Your task to perform on an android device: When is my next appointment? Image 0: 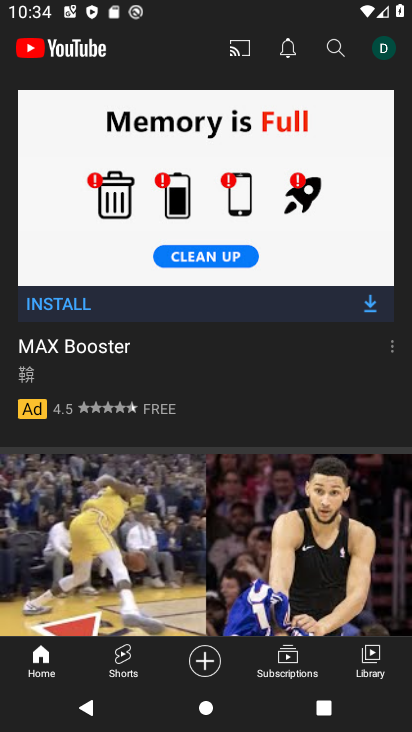
Step 0: press home button
Your task to perform on an android device: When is my next appointment? Image 1: 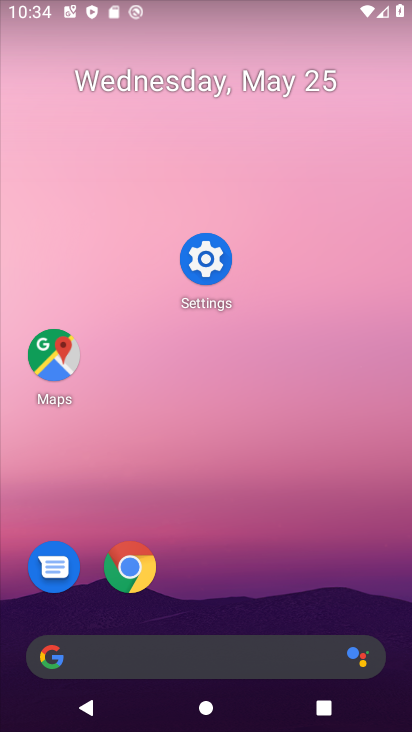
Step 1: drag from (219, 584) to (256, 30)
Your task to perform on an android device: When is my next appointment? Image 2: 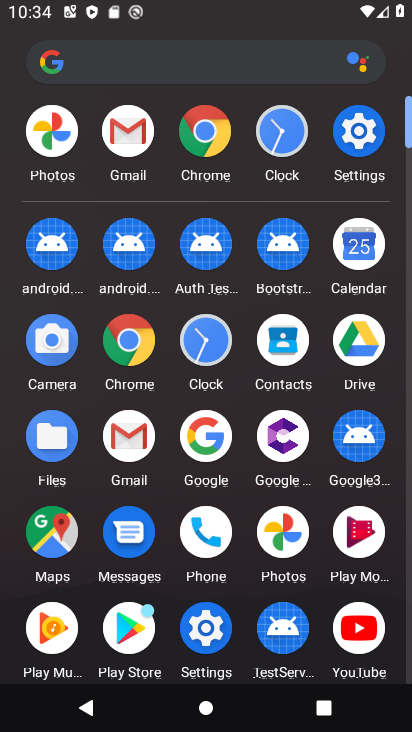
Step 2: click (350, 242)
Your task to perform on an android device: When is my next appointment? Image 3: 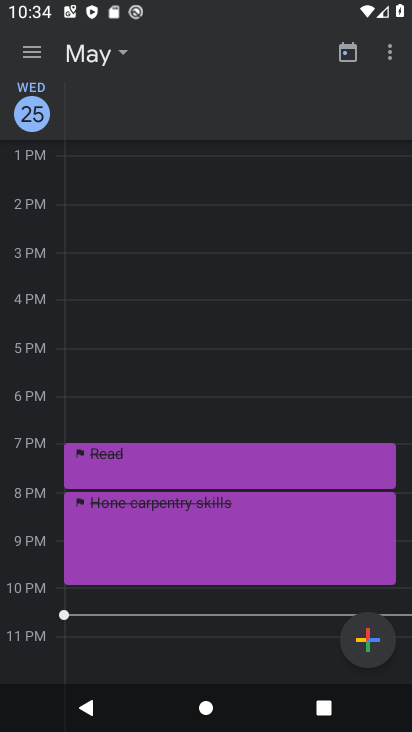
Step 3: task complete